Your task to perform on an android device: turn on the 24-hour format for clock Image 0: 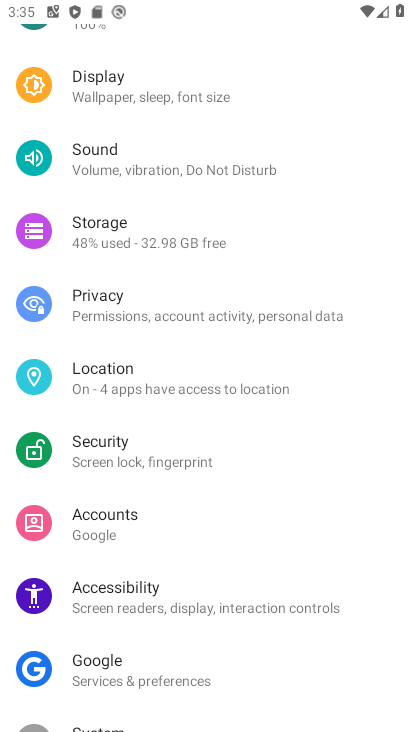
Step 0: press home button
Your task to perform on an android device: turn on the 24-hour format for clock Image 1: 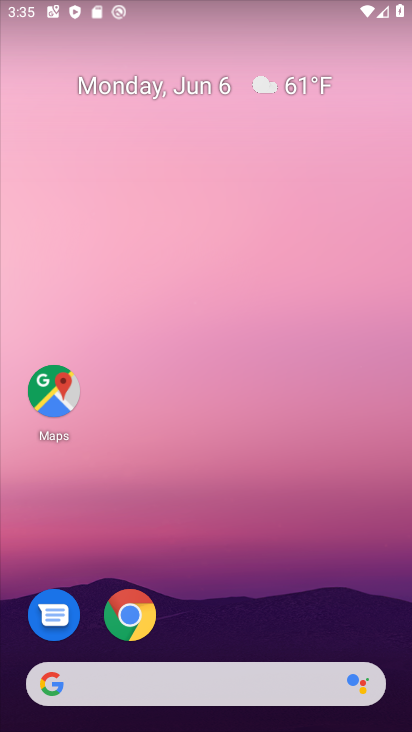
Step 1: drag from (393, 623) to (310, 34)
Your task to perform on an android device: turn on the 24-hour format for clock Image 2: 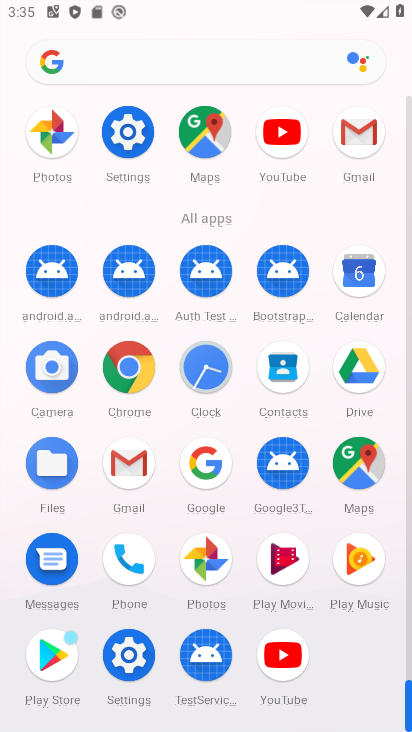
Step 2: click (204, 367)
Your task to perform on an android device: turn on the 24-hour format for clock Image 3: 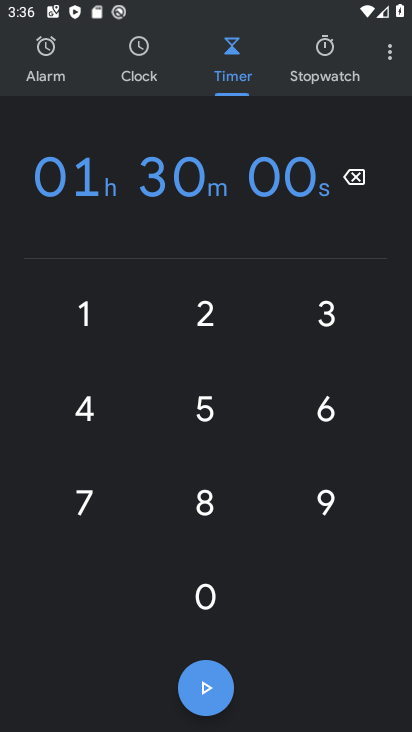
Step 3: click (386, 56)
Your task to perform on an android device: turn on the 24-hour format for clock Image 4: 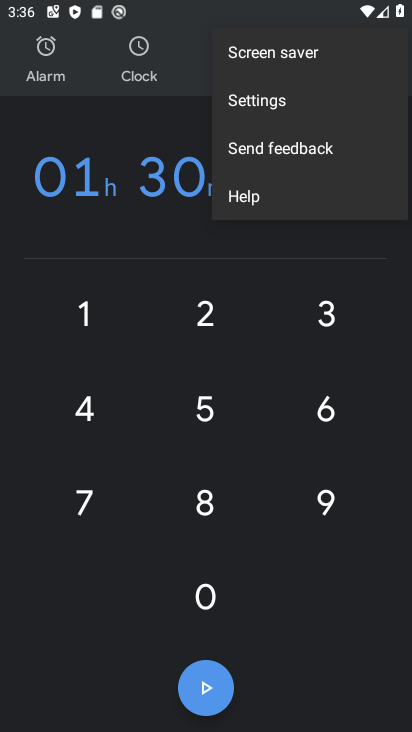
Step 4: click (255, 98)
Your task to perform on an android device: turn on the 24-hour format for clock Image 5: 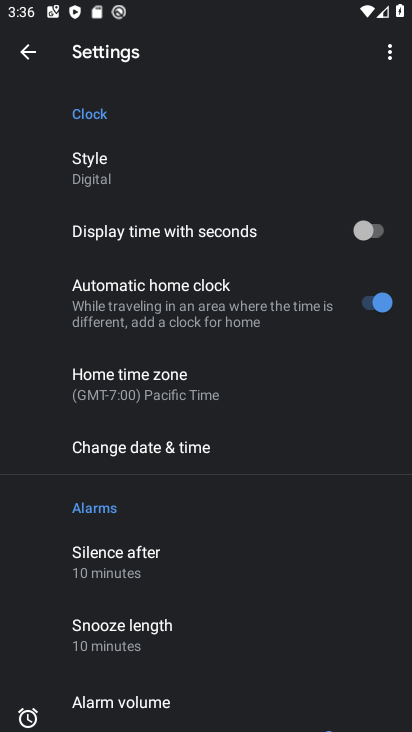
Step 5: click (182, 453)
Your task to perform on an android device: turn on the 24-hour format for clock Image 6: 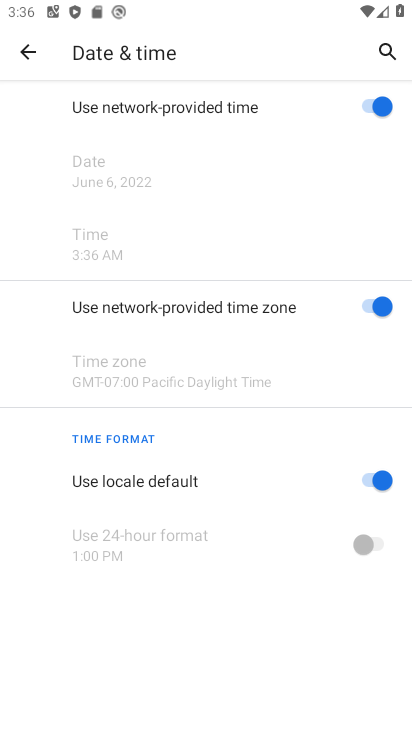
Step 6: click (364, 481)
Your task to perform on an android device: turn on the 24-hour format for clock Image 7: 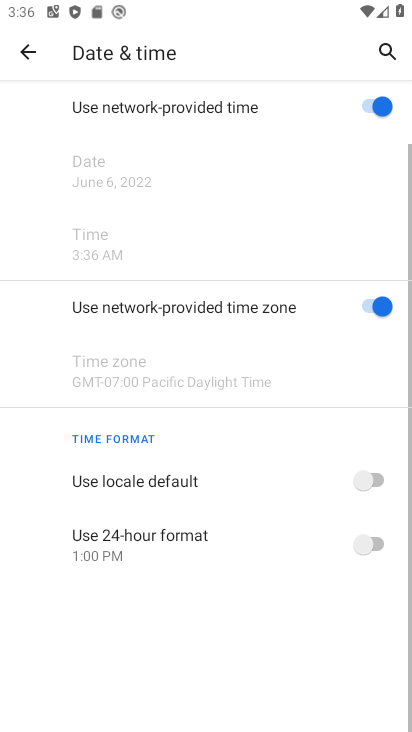
Step 7: click (376, 543)
Your task to perform on an android device: turn on the 24-hour format for clock Image 8: 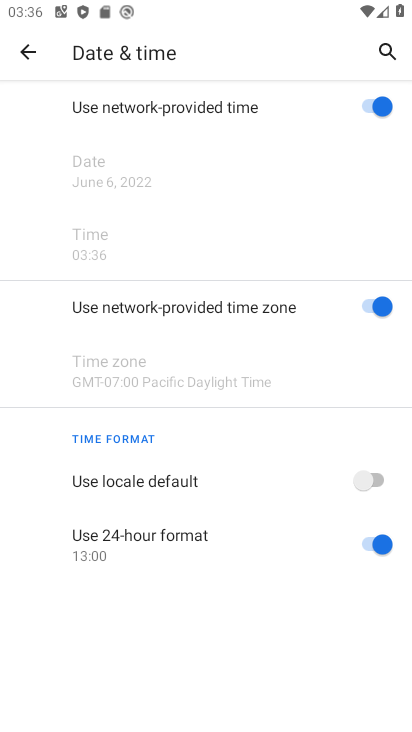
Step 8: task complete